Your task to perform on an android device: choose inbox layout in the gmail app Image 0: 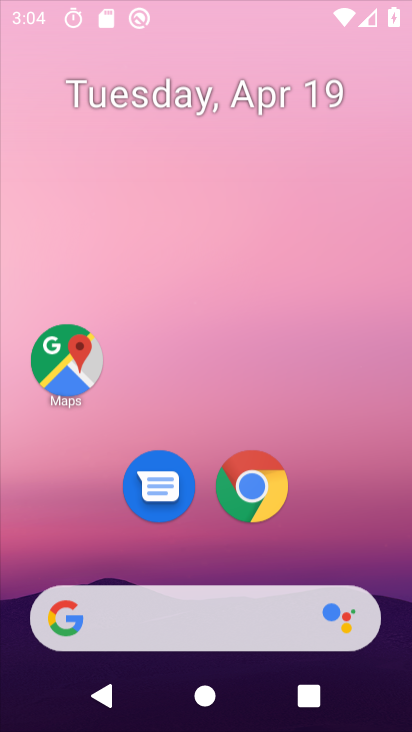
Step 0: click (321, 7)
Your task to perform on an android device: choose inbox layout in the gmail app Image 1: 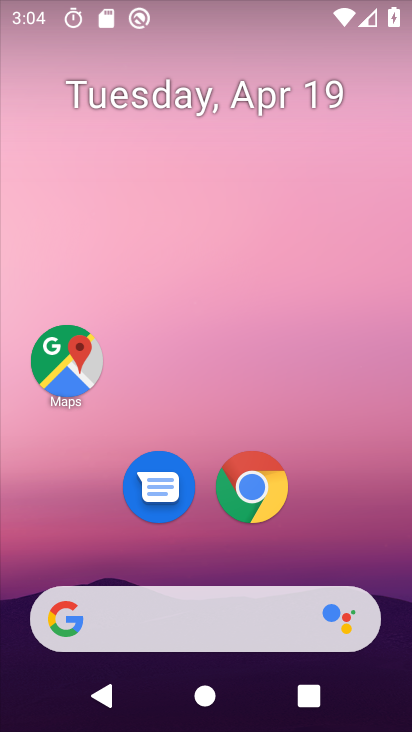
Step 1: drag from (191, 395) to (252, 5)
Your task to perform on an android device: choose inbox layout in the gmail app Image 2: 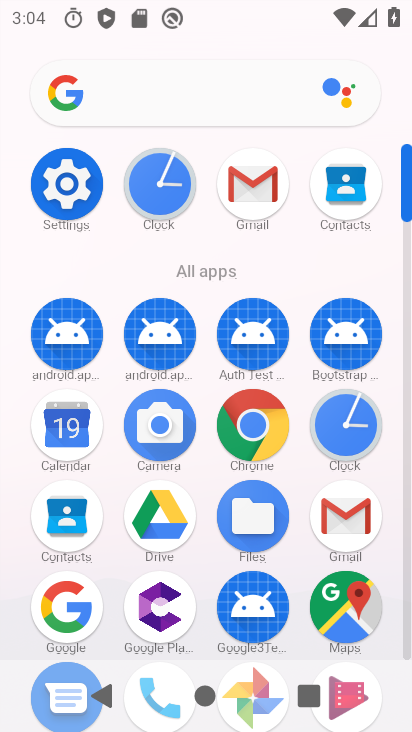
Step 2: click (251, 171)
Your task to perform on an android device: choose inbox layout in the gmail app Image 3: 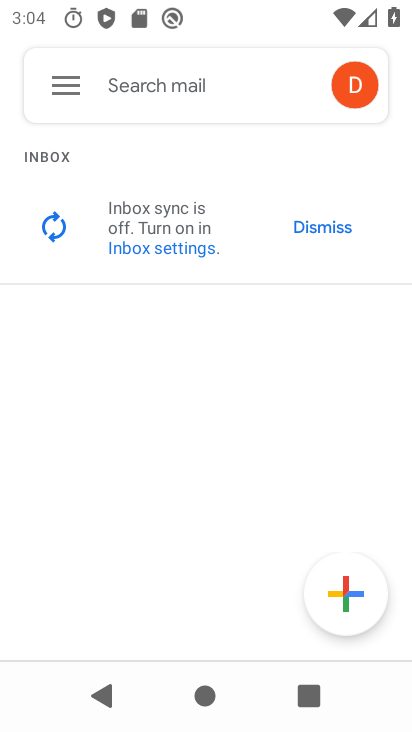
Step 3: click (62, 84)
Your task to perform on an android device: choose inbox layout in the gmail app Image 4: 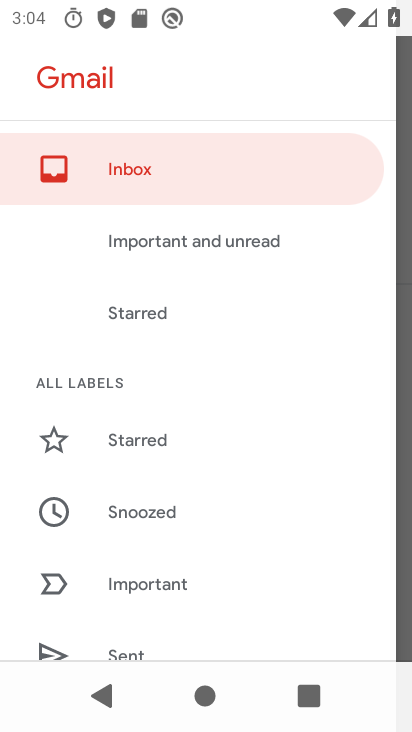
Step 4: drag from (243, 546) to (282, 226)
Your task to perform on an android device: choose inbox layout in the gmail app Image 5: 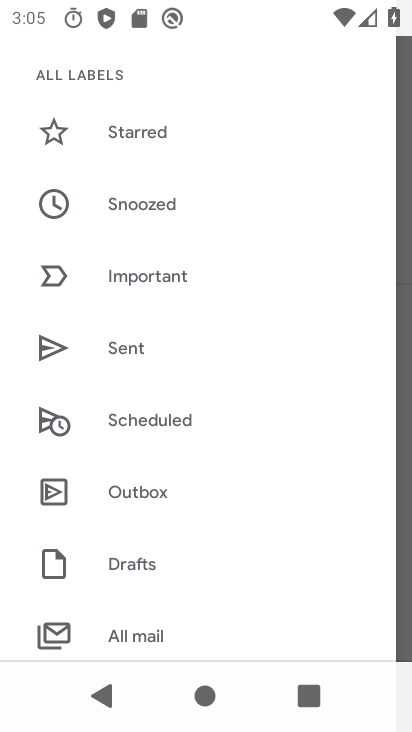
Step 5: drag from (157, 587) to (280, 68)
Your task to perform on an android device: choose inbox layout in the gmail app Image 6: 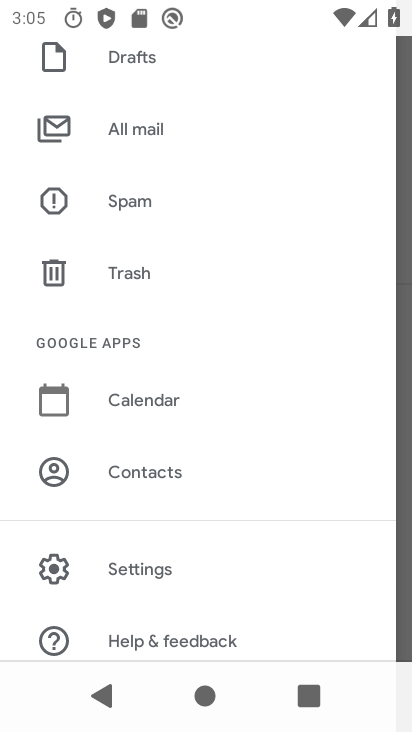
Step 6: click (162, 561)
Your task to perform on an android device: choose inbox layout in the gmail app Image 7: 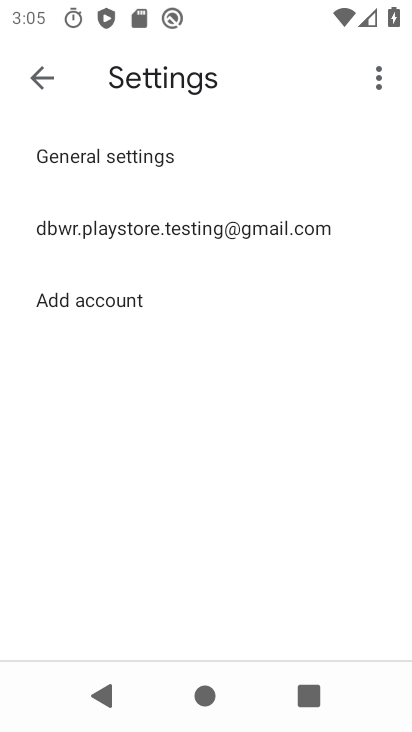
Step 7: click (186, 223)
Your task to perform on an android device: choose inbox layout in the gmail app Image 8: 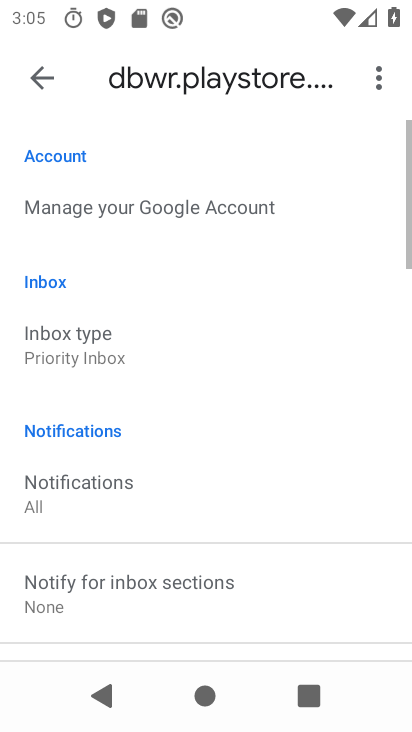
Step 8: click (85, 340)
Your task to perform on an android device: choose inbox layout in the gmail app Image 9: 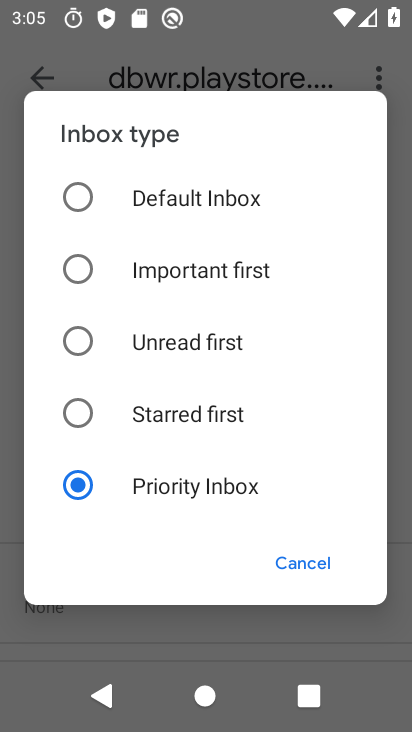
Step 9: click (71, 192)
Your task to perform on an android device: choose inbox layout in the gmail app Image 10: 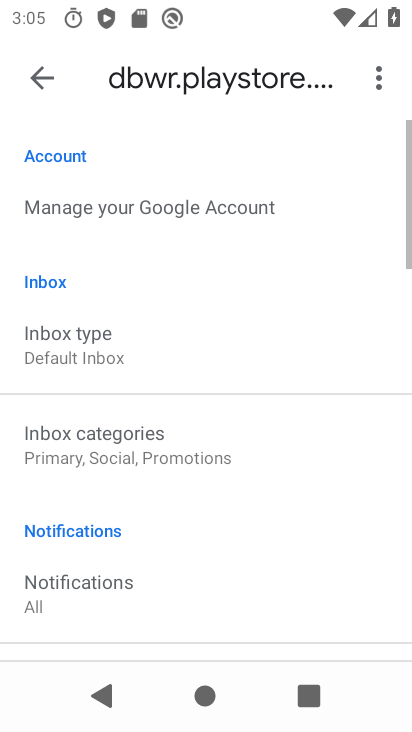
Step 10: task complete